Your task to perform on an android device: Show me productivity apps on the Play Store Image 0: 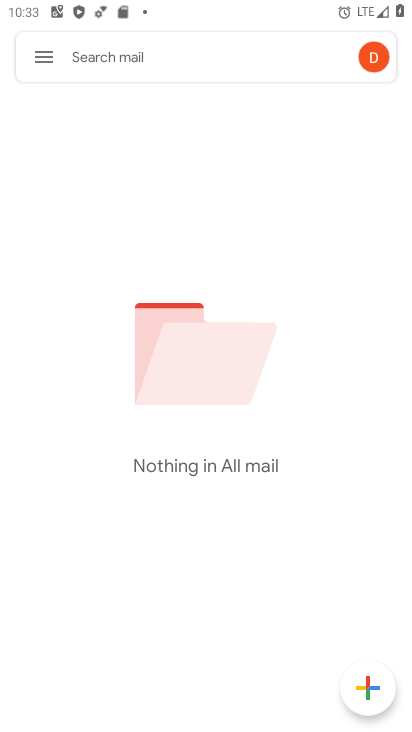
Step 0: press home button
Your task to perform on an android device: Show me productivity apps on the Play Store Image 1: 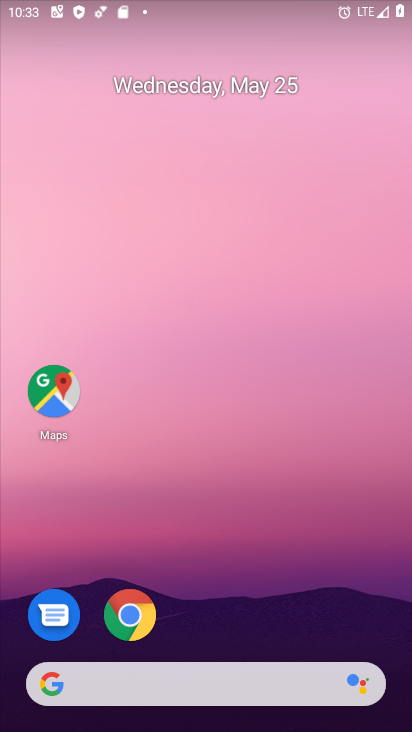
Step 1: drag from (235, 553) to (224, 16)
Your task to perform on an android device: Show me productivity apps on the Play Store Image 2: 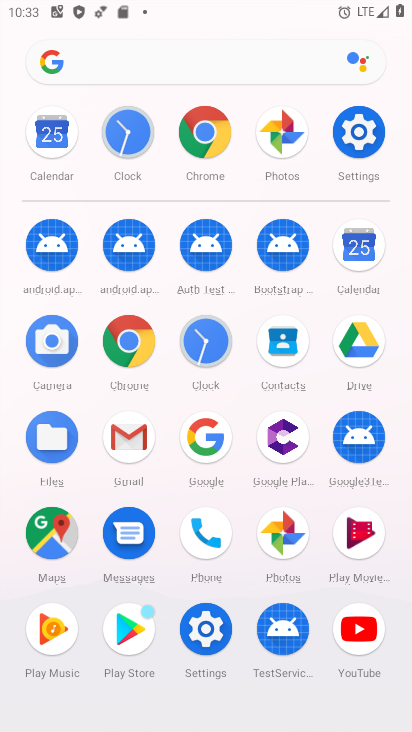
Step 2: click (130, 623)
Your task to perform on an android device: Show me productivity apps on the Play Store Image 3: 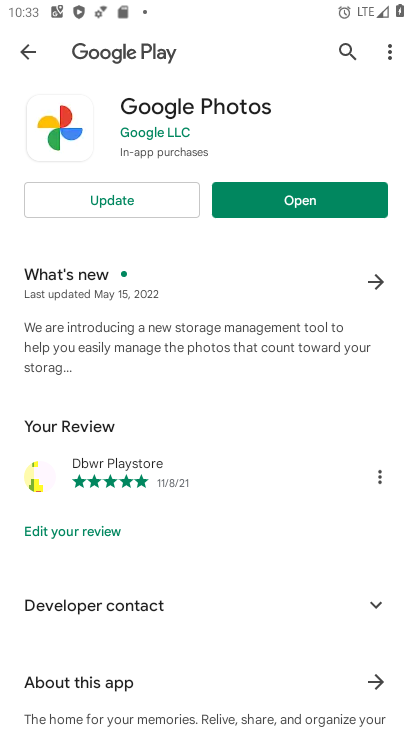
Step 3: click (24, 51)
Your task to perform on an android device: Show me productivity apps on the Play Store Image 4: 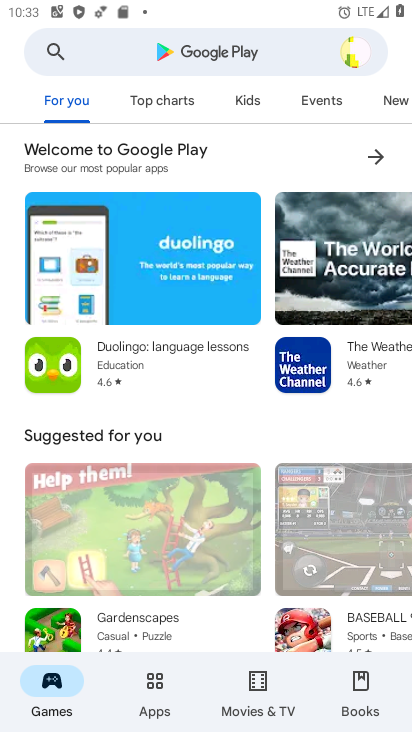
Step 4: click (146, 677)
Your task to perform on an android device: Show me productivity apps on the Play Store Image 5: 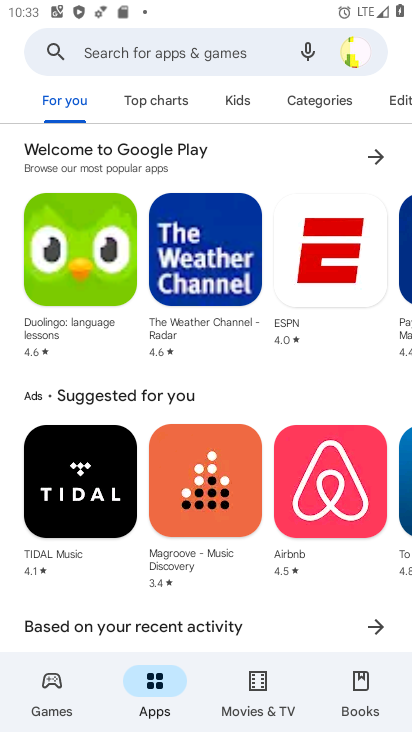
Step 5: click (291, 100)
Your task to perform on an android device: Show me productivity apps on the Play Store Image 6: 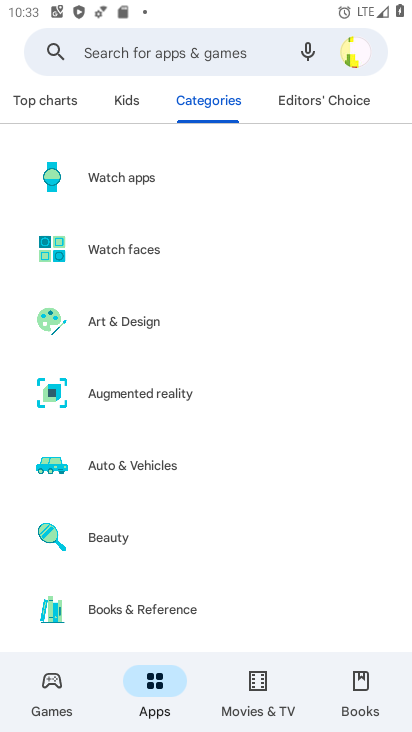
Step 6: drag from (243, 547) to (253, 147)
Your task to perform on an android device: Show me productivity apps on the Play Store Image 7: 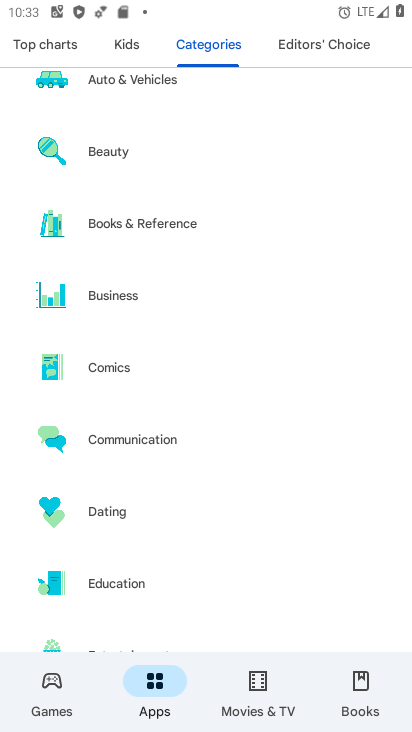
Step 7: drag from (283, 506) to (261, 136)
Your task to perform on an android device: Show me productivity apps on the Play Store Image 8: 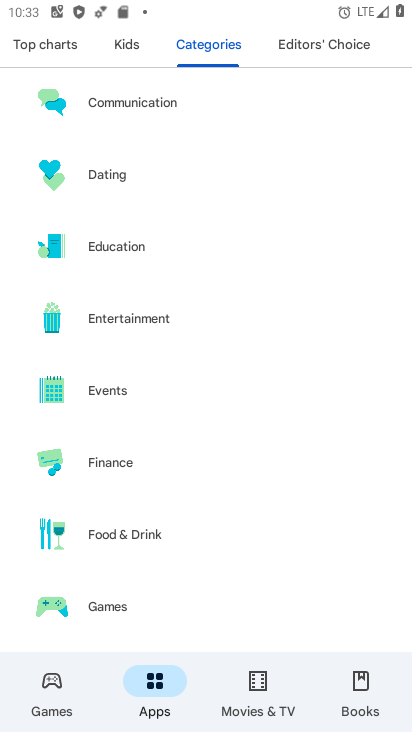
Step 8: drag from (194, 651) to (198, 201)
Your task to perform on an android device: Show me productivity apps on the Play Store Image 9: 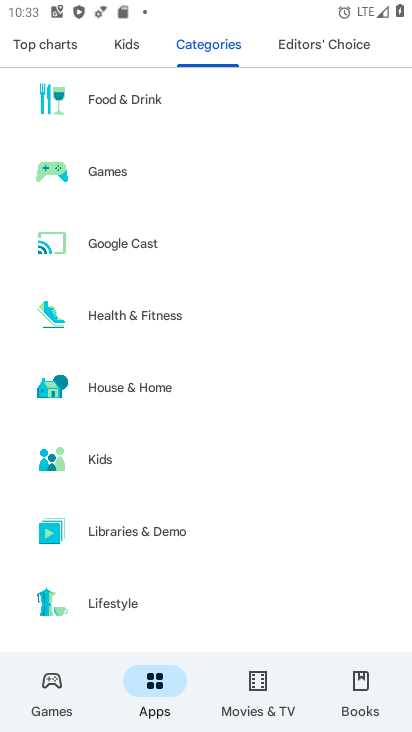
Step 9: drag from (192, 559) to (229, 129)
Your task to perform on an android device: Show me productivity apps on the Play Store Image 10: 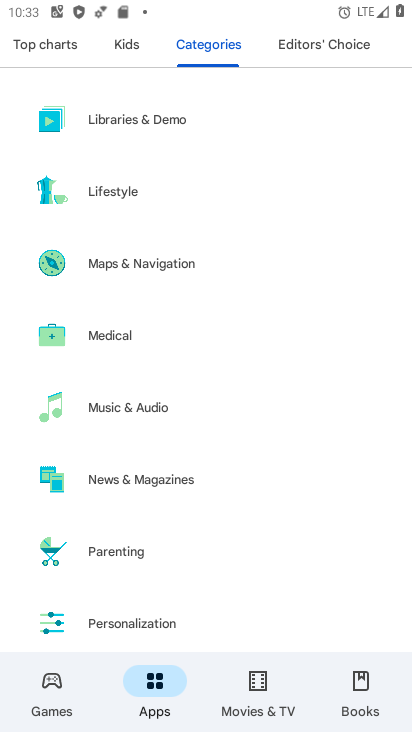
Step 10: drag from (245, 512) to (242, 177)
Your task to perform on an android device: Show me productivity apps on the Play Store Image 11: 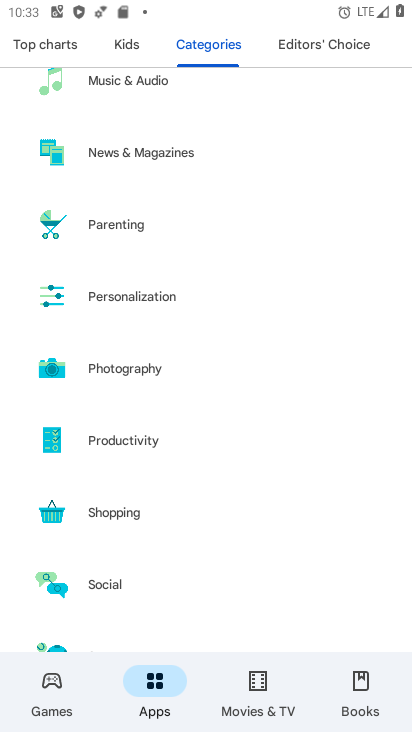
Step 11: click (121, 433)
Your task to perform on an android device: Show me productivity apps on the Play Store Image 12: 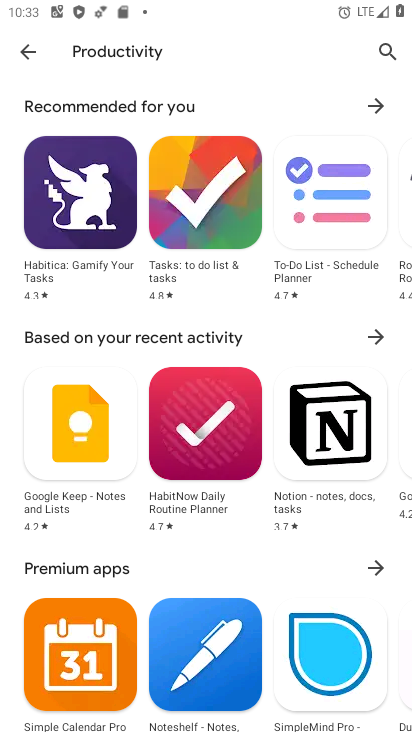
Step 12: task complete